Your task to perform on an android device: Find coffee shops on Maps Image 0: 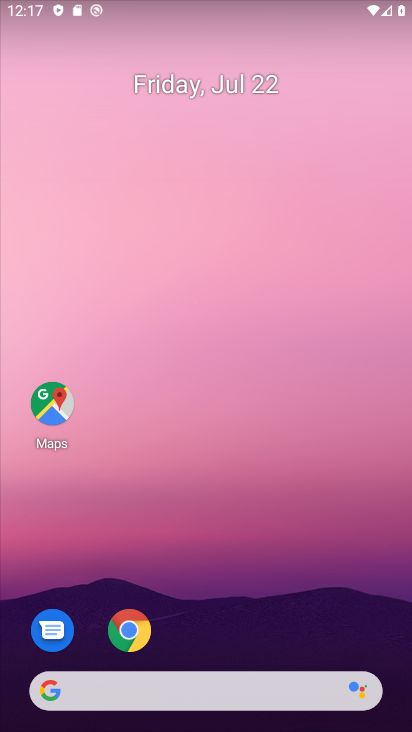
Step 0: drag from (280, 633) to (292, 18)
Your task to perform on an android device: Find coffee shops on Maps Image 1: 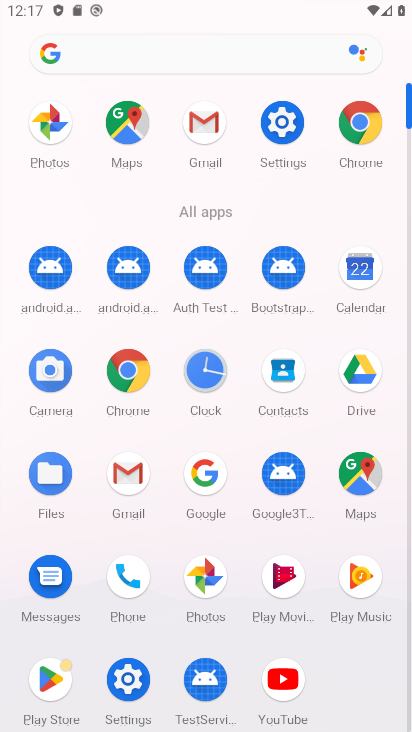
Step 1: click (354, 471)
Your task to perform on an android device: Find coffee shops on Maps Image 2: 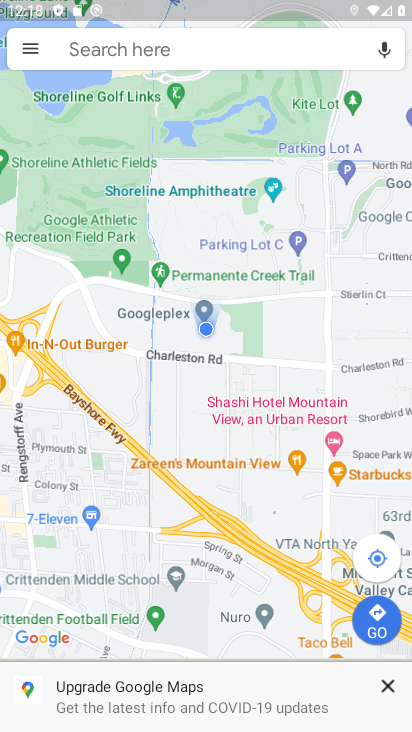
Step 2: click (73, 45)
Your task to perform on an android device: Find coffee shops on Maps Image 3: 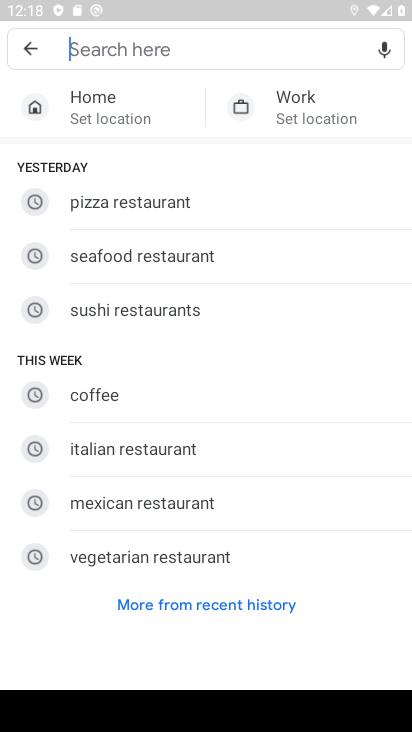
Step 3: type " coffee shops"
Your task to perform on an android device: Find coffee shops on Maps Image 4: 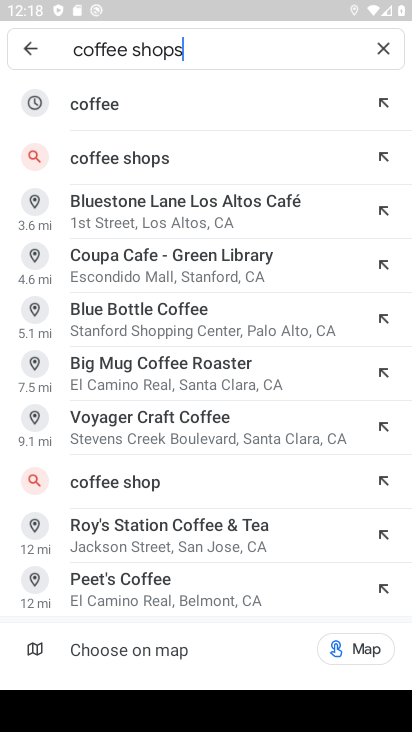
Step 4: click (145, 160)
Your task to perform on an android device: Find coffee shops on Maps Image 5: 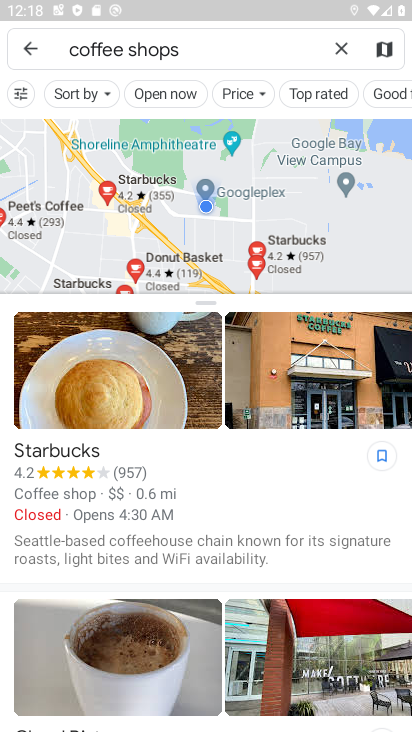
Step 5: task complete